Your task to perform on an android device: open app "Google Play services" (install if not already installed) Image 0: 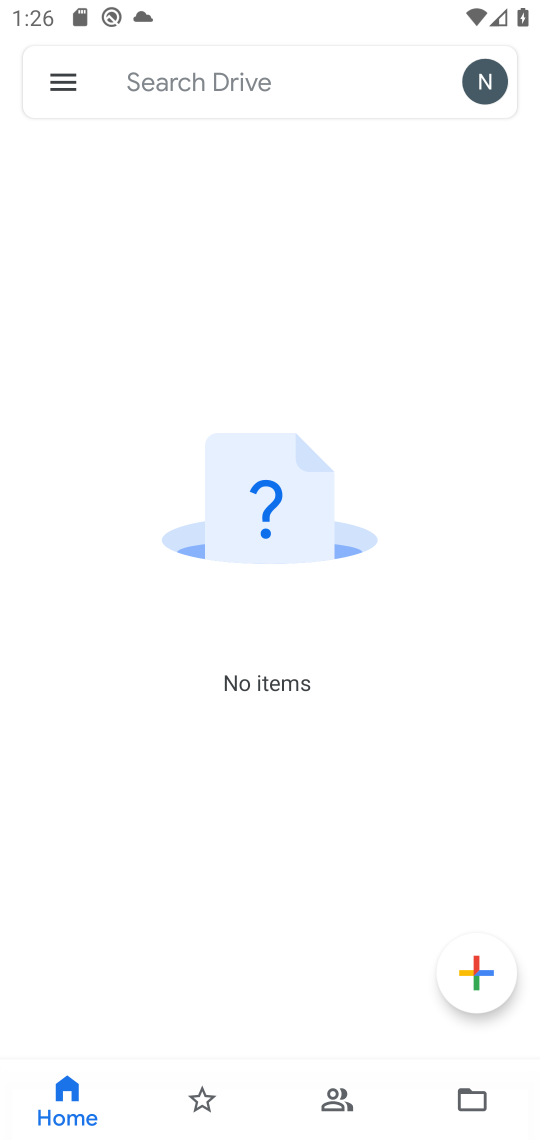
Step 0: press home button
Your task to perform on an android device: open app "Google Play services" (install if not already installed) Image 1: 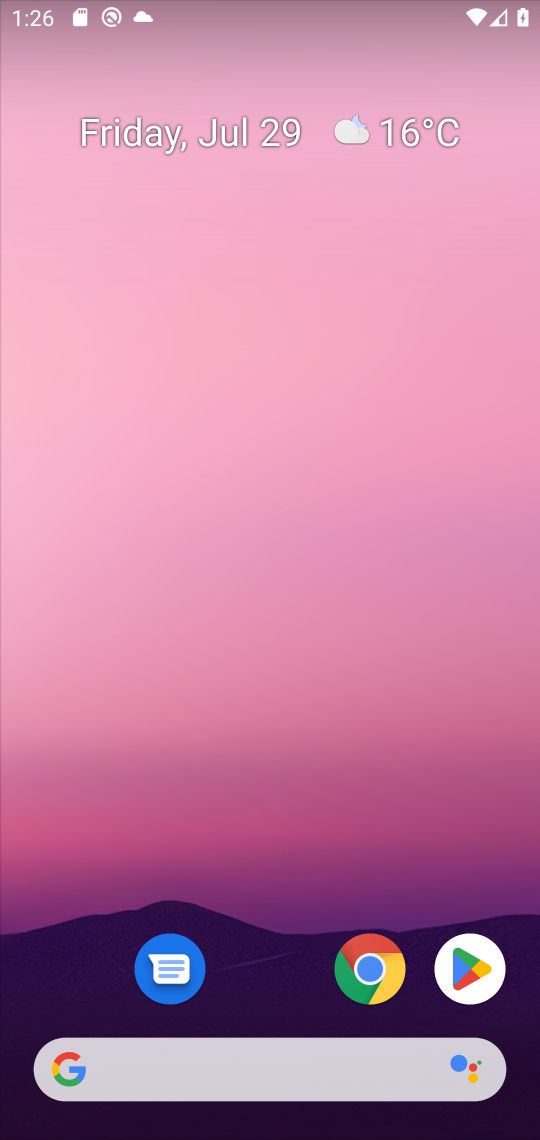
Step 1: click (467, 962)
Your task to perform on an android device: open app "Google Play services" (install if not already installed) Image 2: 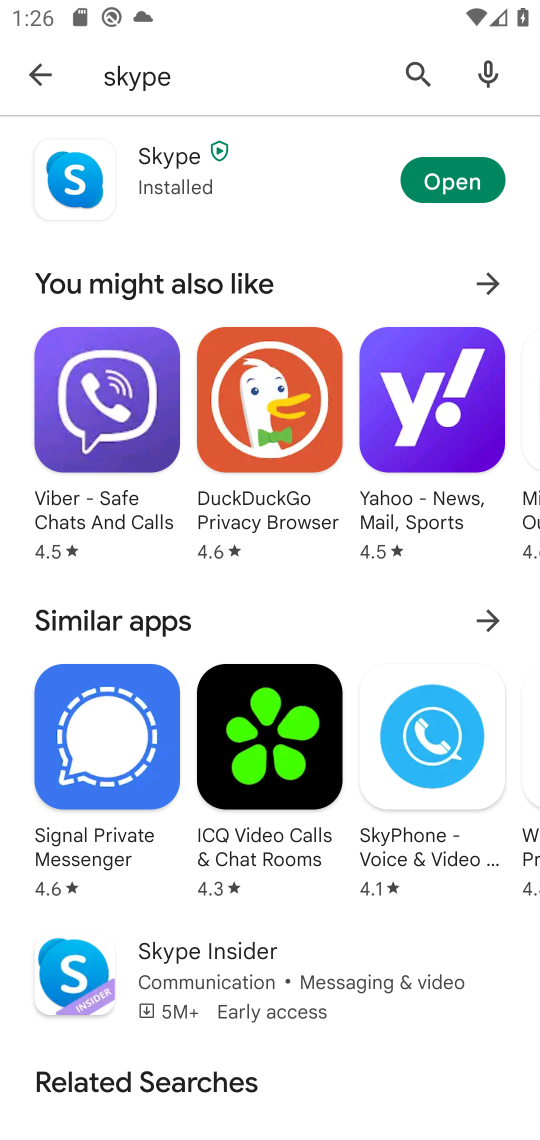
Step 2: click (423, 68)
Your task to perform on an android device: open app "Google Play services" (install if not already installed) Image 3: 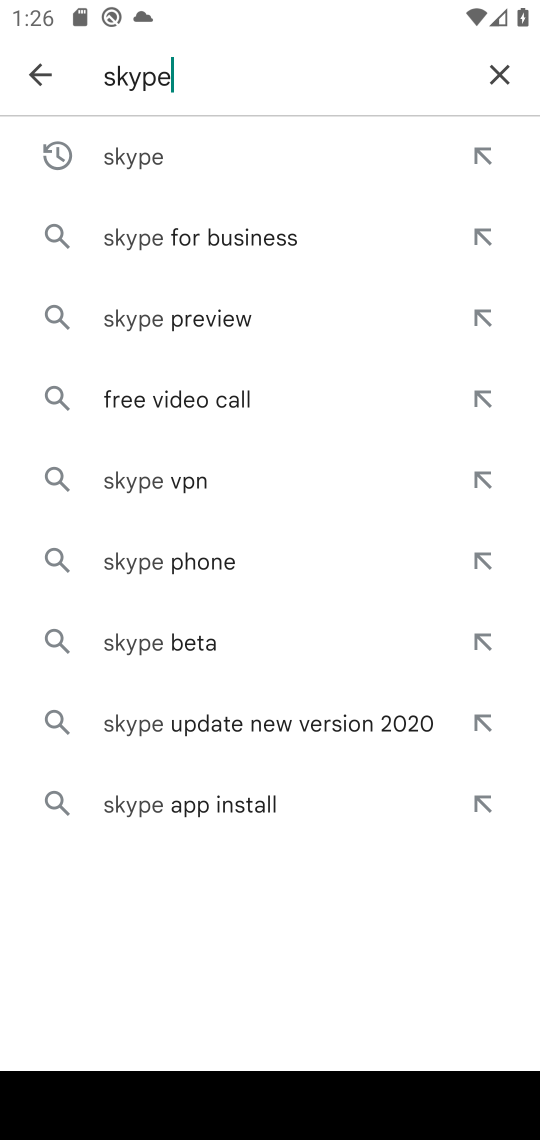
Step 3: click (513, 75)
Your task to perform on an android device: open app "Google Play services" (install if not already installed) Image 4: 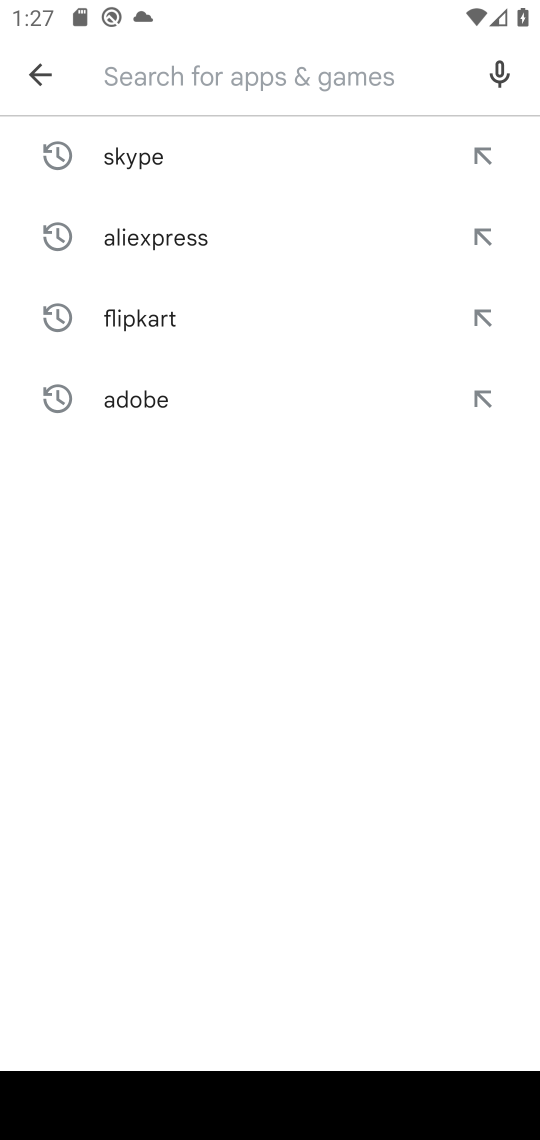
Step 4: type "play services"
Your task to perform on an android device: open app "Google Play services" (install if not already installed) Image 5: 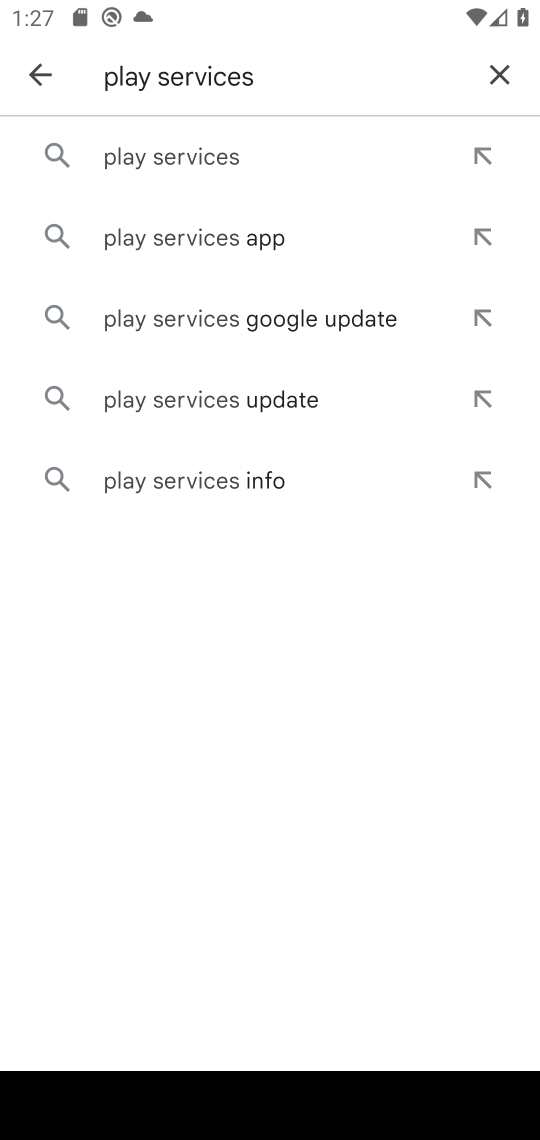
Step 5: click (216, 158)
Your task to perform on an android device: open app "Google Play services" (install if not already installed) Image 6: 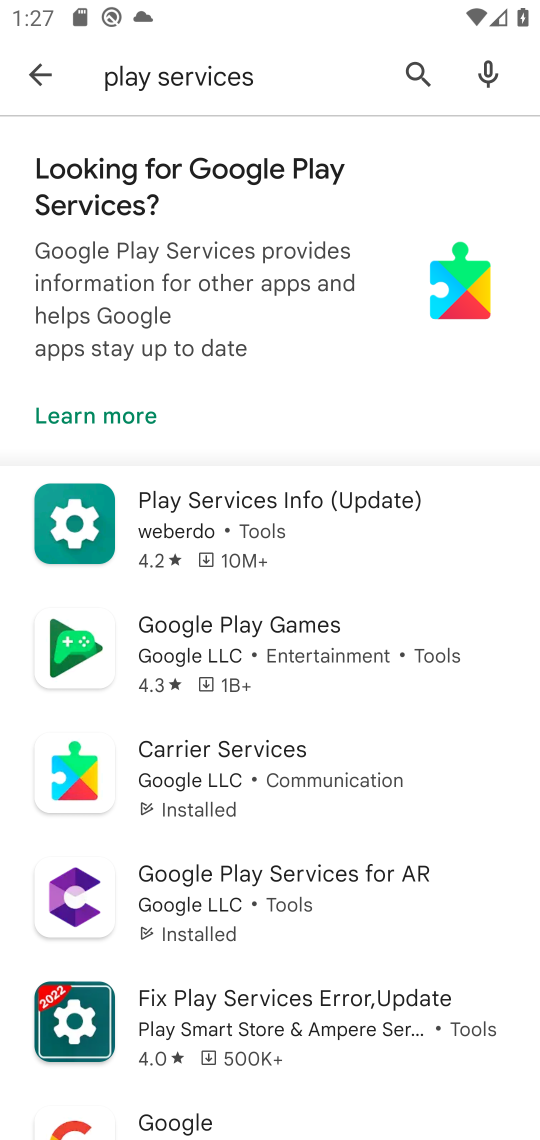
Step 6: click (81, 531)
Your task to perform on an android device: open app "Google Play services" (install if not already installed) Image 7: 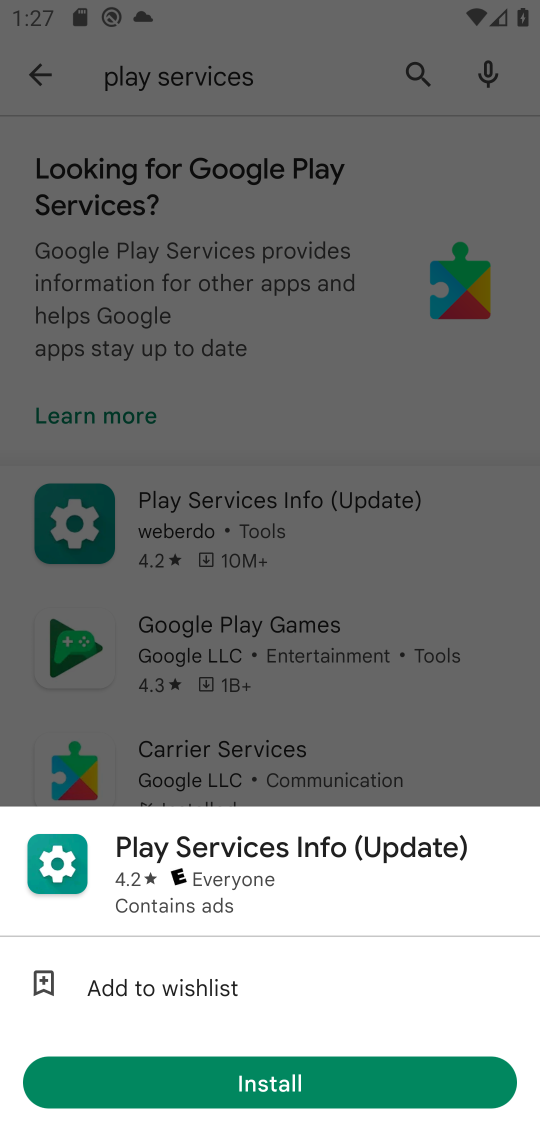
Step 7: click (267, 1091)
Your task to perform on an android device: open app "Google Play services" (install if not already installed) Image 8: 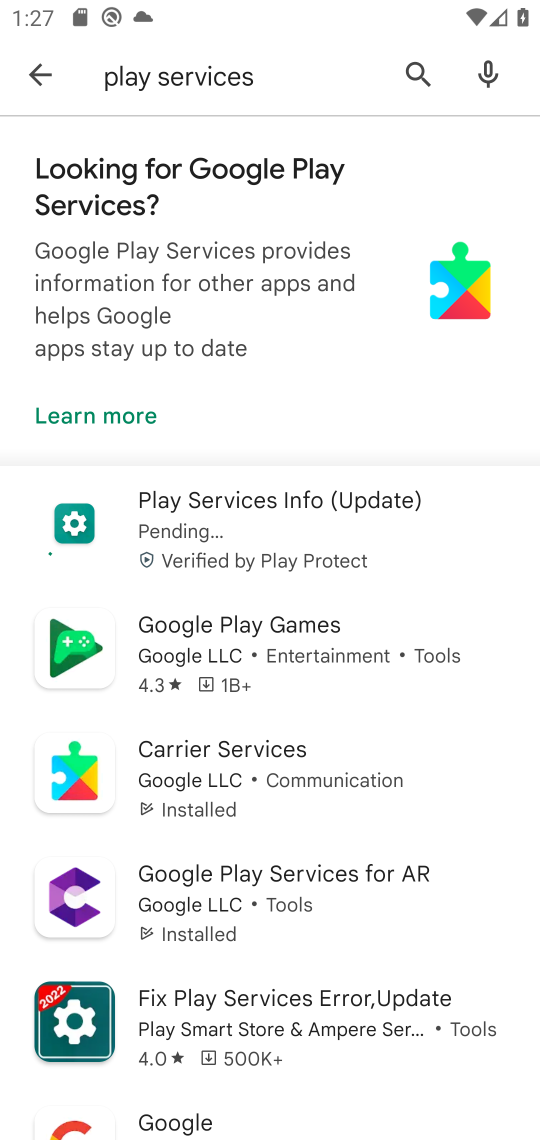
Step 8: click (77, 522)
Your task to perform on an android device: open app "Google Play services" (install if not already installed) Image 9: 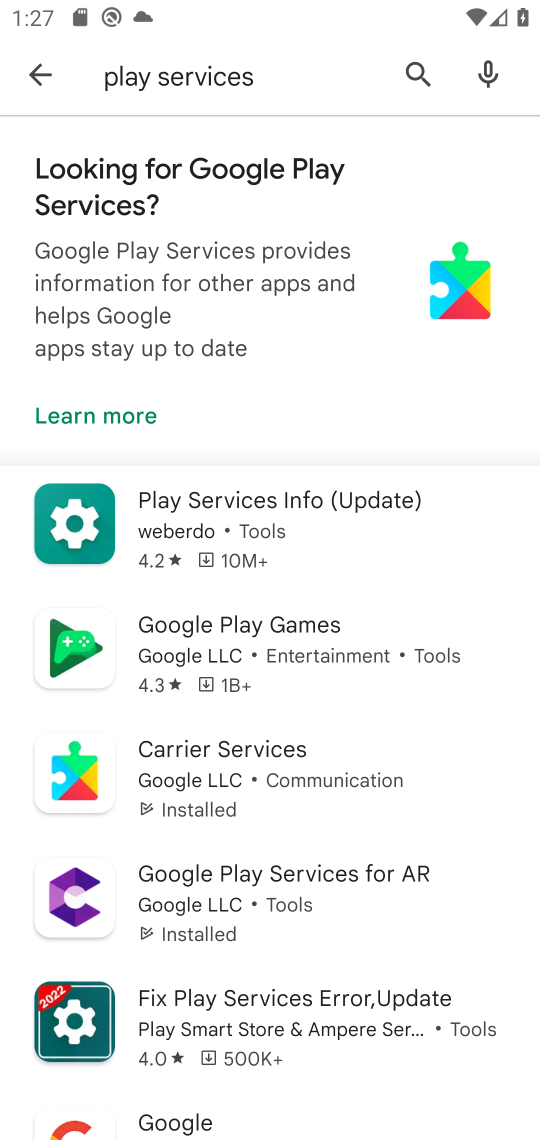
Step 9: click (132, 498)
Your task to perform on an android device: open app "Google Play services" (install if not already installed) Image 10: 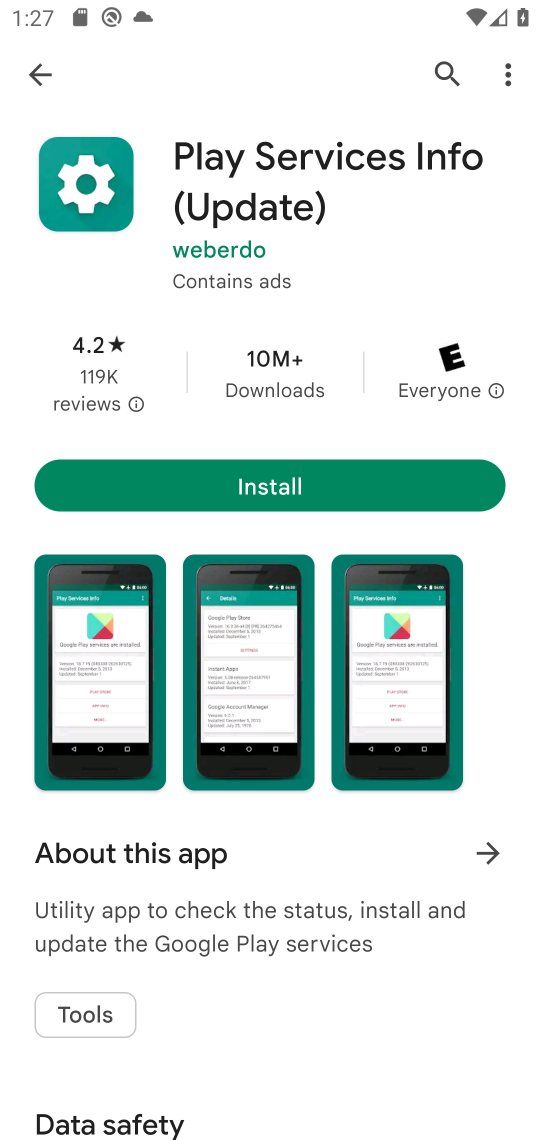
Step 10: click (266, 479)
Your task to perform on an android device: open app "Google Play services" (install if not already installed) Image 11: 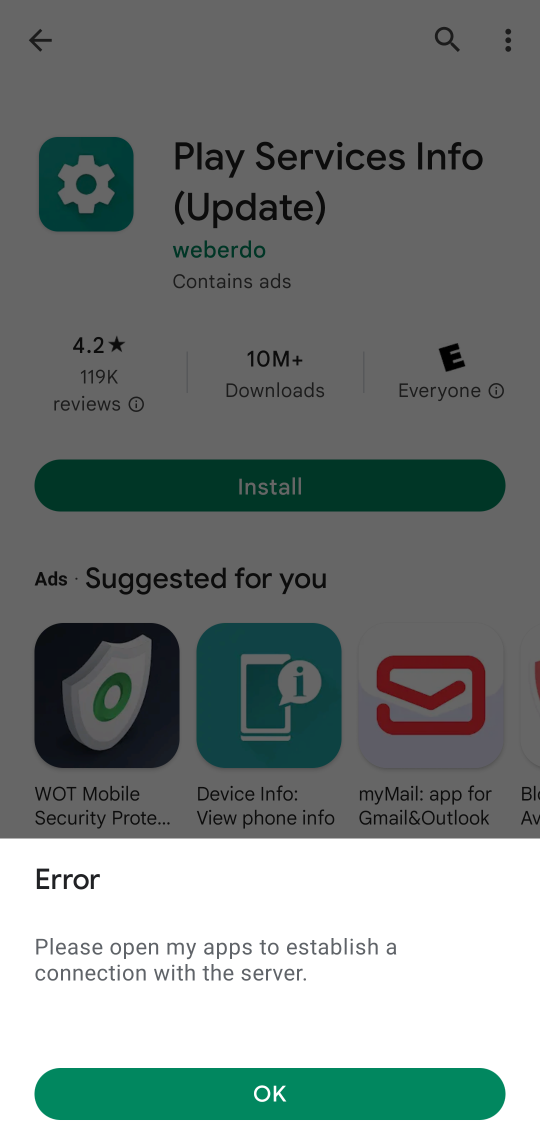
Step 11: task complete